Your task to perform on an android device: turn on the 12-hour format for clock Image 0: 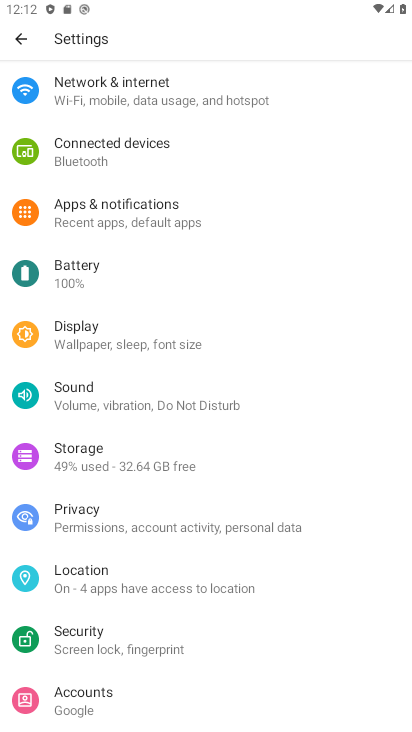
Step 0: drag from (191, 208) to (176, 536)
Your task to perform on an android device: turn on the 12-hour format for clock Image 1: 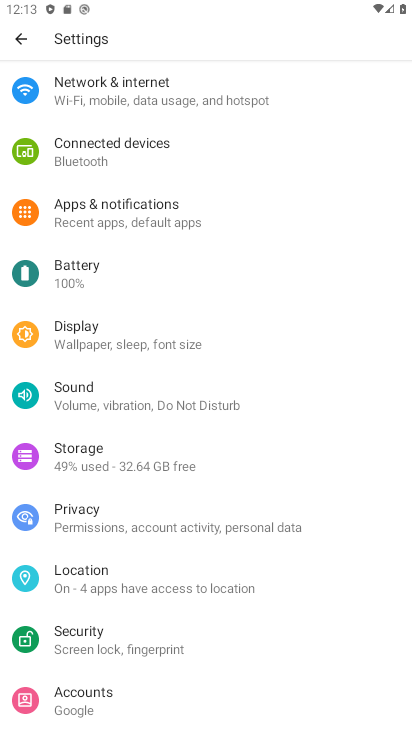
Step 1: press home button
Your task to perform on an android device: turn on the 12-hour format for clock Image 2: 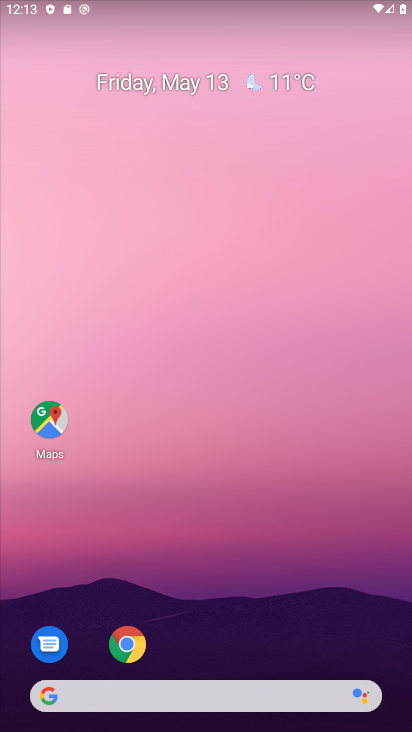
Step 2: drag from (218, 725) to (218, 278)
Your task to perform on an android device: turn on the 12-hour format for clock Image 3: 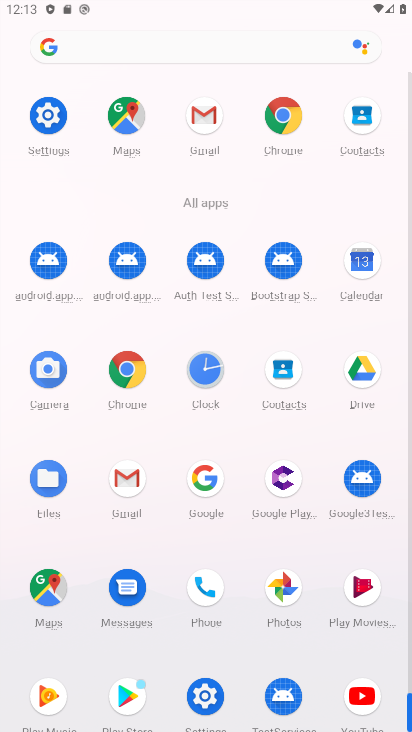
Step 3: click (202, 371)
Your task to perform on an android device: turn on the 12-hour format for clock Image 4: 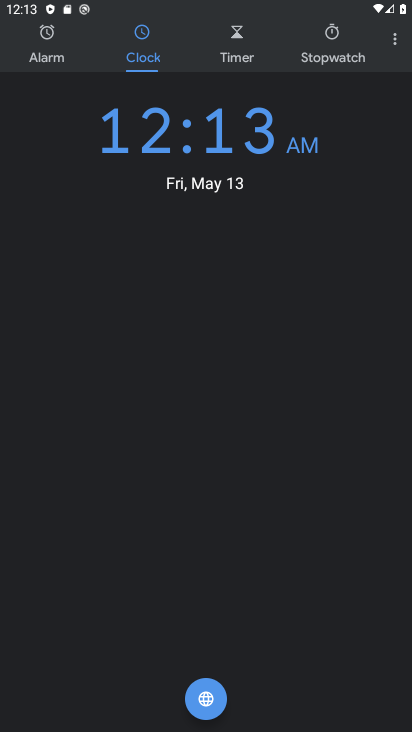
Step 4: click (394, 39)
Your task to perform on an android device: turn on the 12-hour format for clock Image 5: 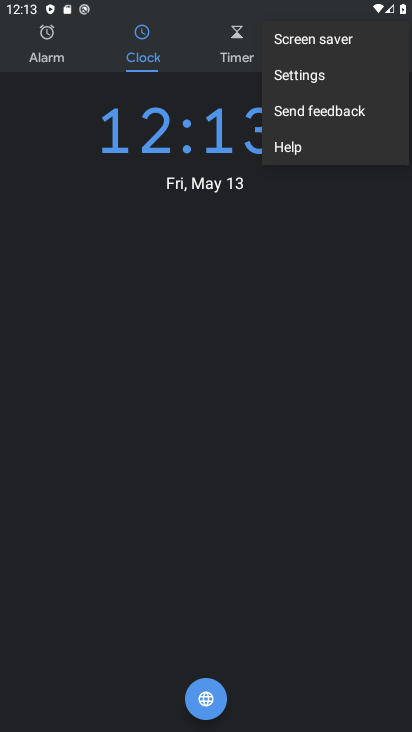
Step 5: click (294, 69)
Your task to perform on an android device: turn on the 12-hour format for clock Image 6: 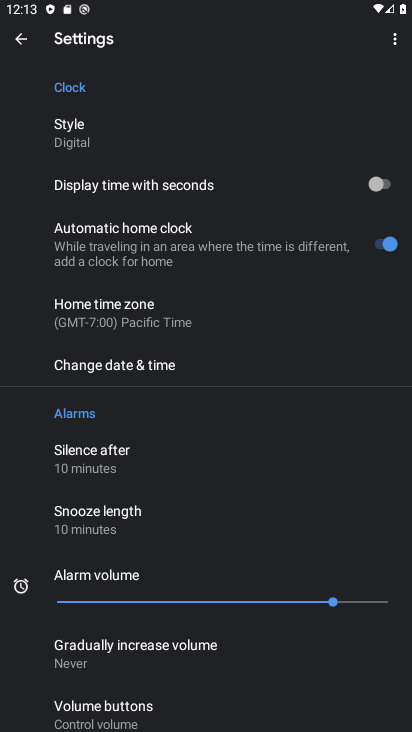
Step 6: click (97, 362)
Your task to perform on an android device: turn on the 12-hour format for clock Image 7: 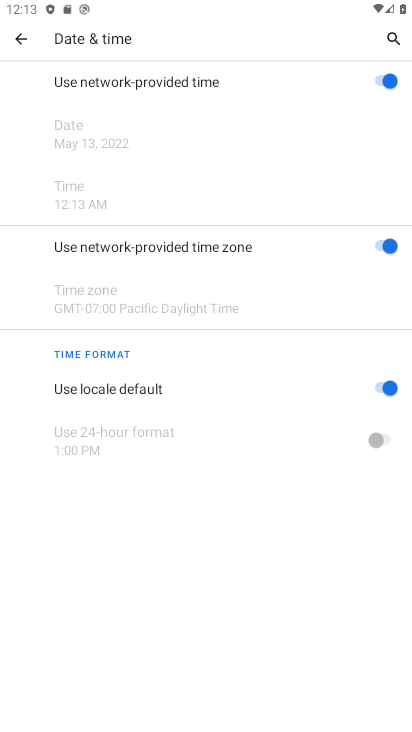
Step 7: task complete